Your task to perform on an android device: Open battery settings Image 0: 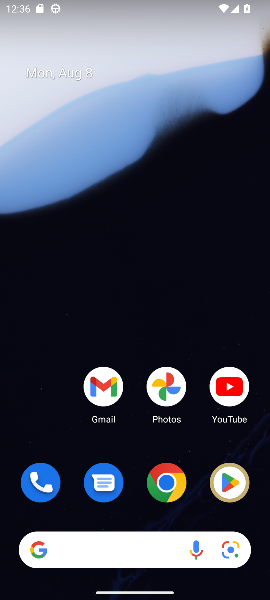
Step 0: drag from (119, 533) to (151, 0)
Your task to perform on an android device: Open battery settings Image 1: 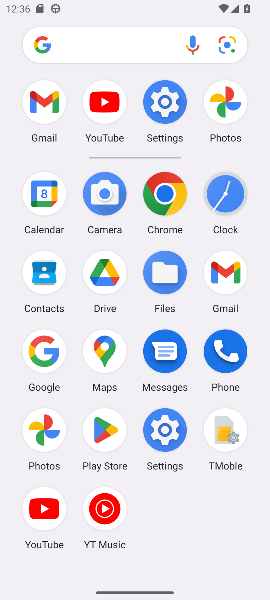
Step 1: click (160, 423)
Your task to perform on an android device: Open battery settings Image 2: 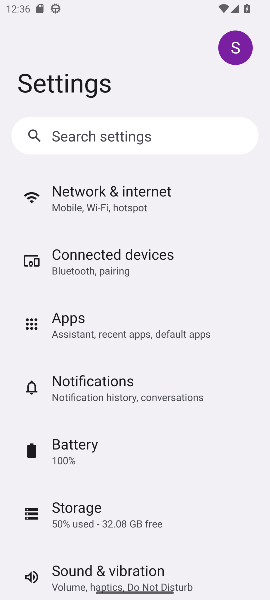
Step 2: click (103, 453)
Your task to perform on an android device: Open battery settings Image 3: 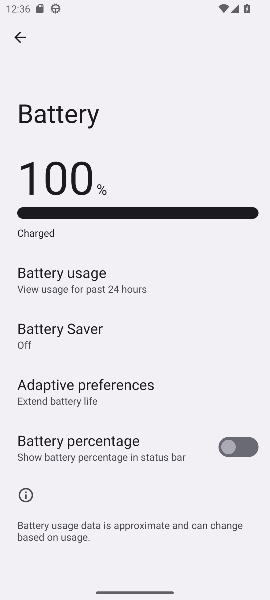
Step 3: task complete